Your task to perform on an android device: Is it going to rain today? Image 0: 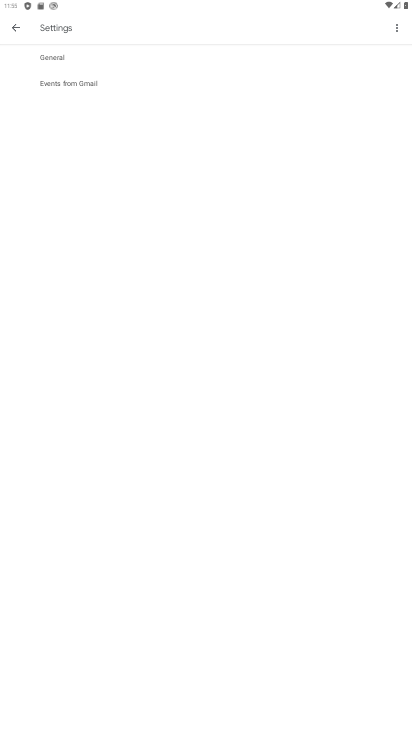
Step 0: press home button
Your task to perform on an android device: Is it going to rain today? Image 1: 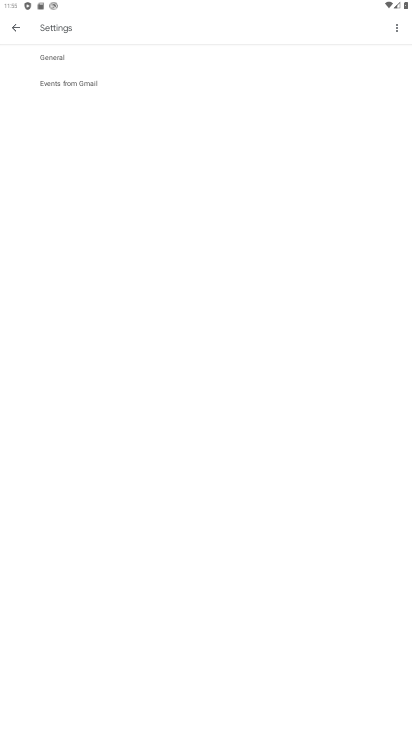
Step 1: press home button
Your task to perform on an android device: Is it going to rain today? Image 2: 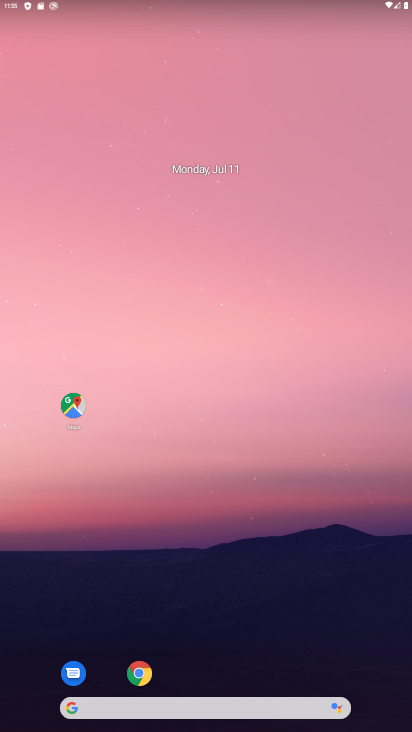
Step 2: drag from (227, 606) to (254, 49)
Your task to perform on an android device: Is it going to rain today? Image 3: 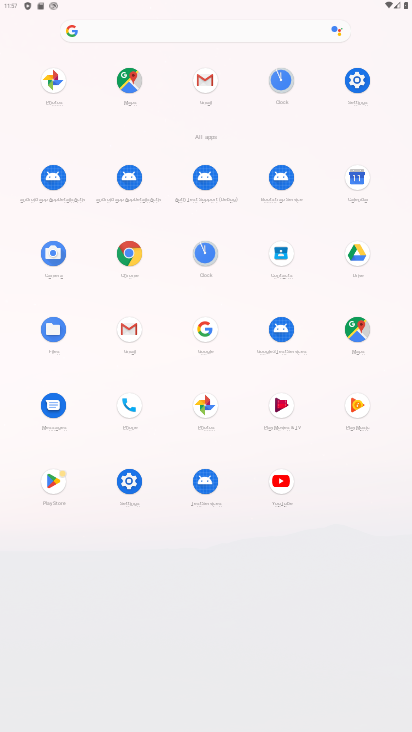
Step 3: click (142, 247)
Your task to perform on an android device: Is it going to rain today? Image 4: 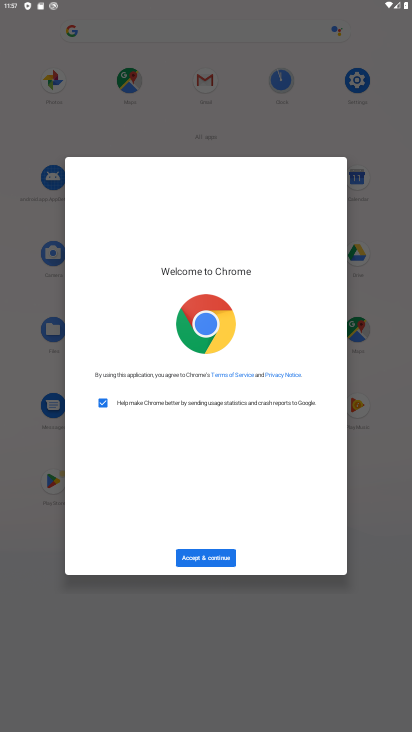
Step 4: click (211, 564)
Your task to perform on an android device: Is it going to rain today? Image 5: 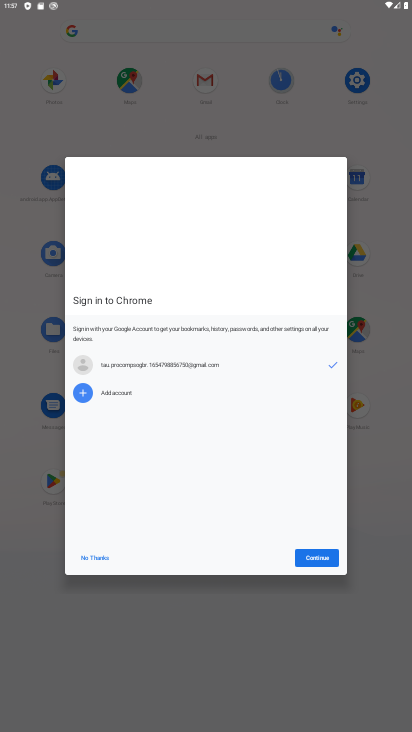
Step 5: click (327, 555)
Your task to perform on an android device: Is it going to rain today? Image 6: 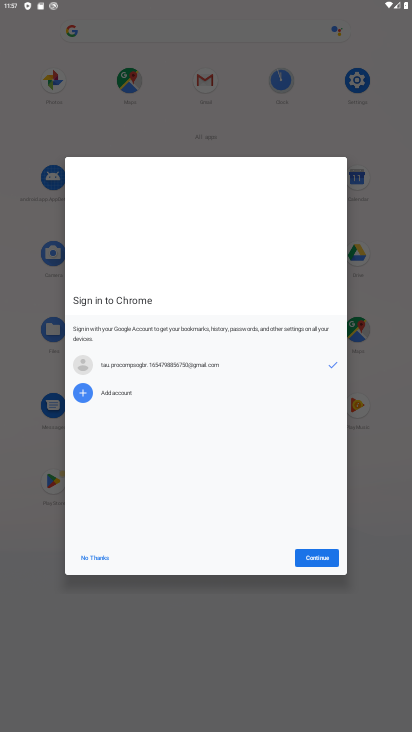
Step 6: click (327, 555)
Your task to perform on an android device: Is it going to rain today? Image 7: 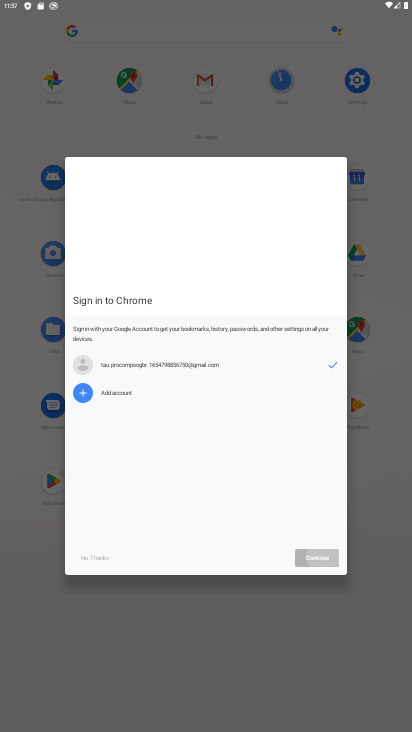
Step 7: click (327, 555)
Your task to perform on an android device: Is it going to rain today? Image 8: 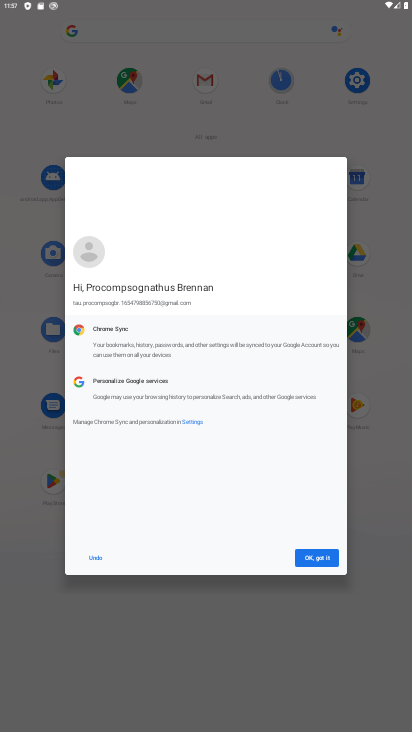
Step 8: click (327, 555)
Your task to perform on an android device: Is it going to rain today? Image 9: 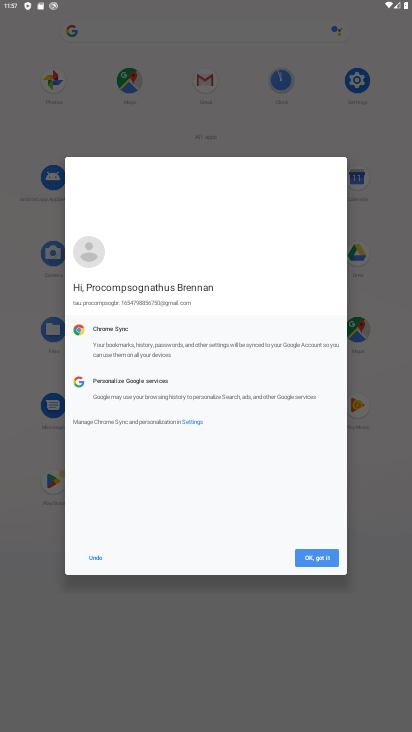
Step 9: click (327, 555)
Your task to perform on an android device: Is it going to rain today? Image 10: 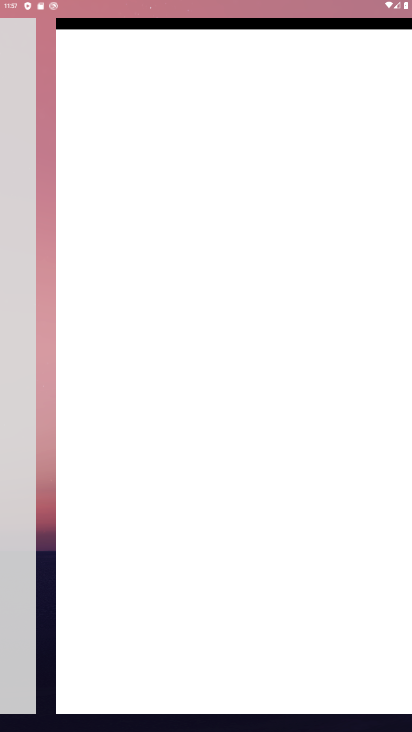
Step 10: click (327, 555)
Your task to perform on an android device: Is it going to rain today? Image 11: 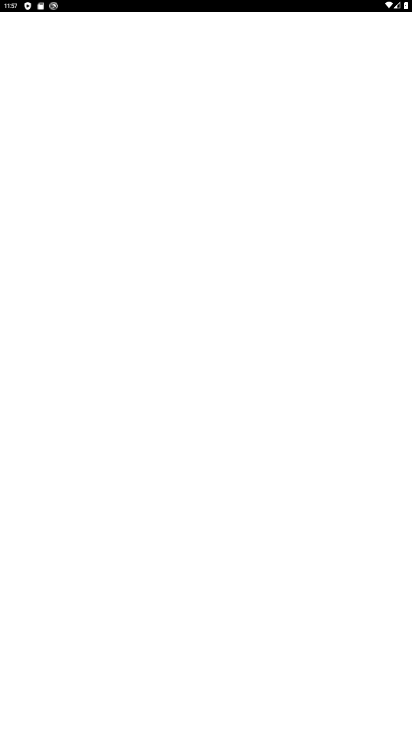
Step 11: click (327, 555)
Your task to perform on an android device: Is it going to rain today? Image 12: 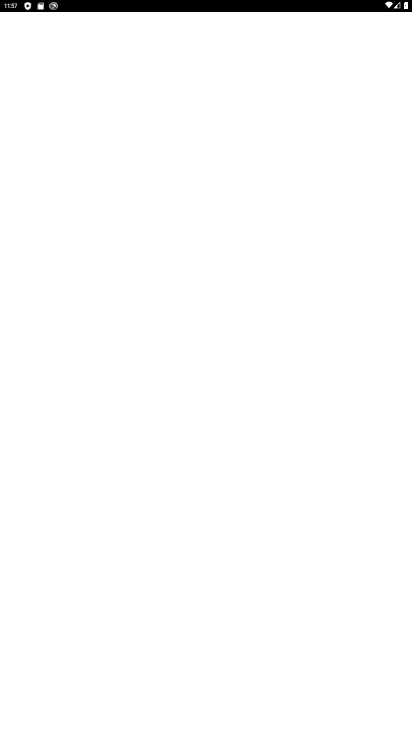
Step 12: click (327, 555)
Your task to perform on an android device: Is it going to rain today? Image 13: 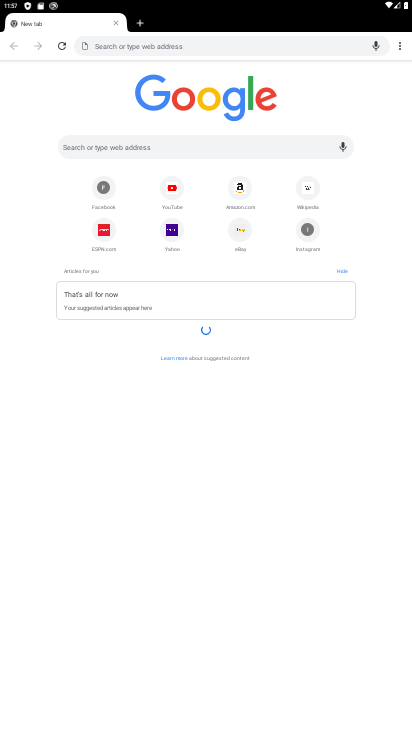
Step 13: click (212, 147)
Your task to perform on an android device: Is it going to rain today? Image 14: 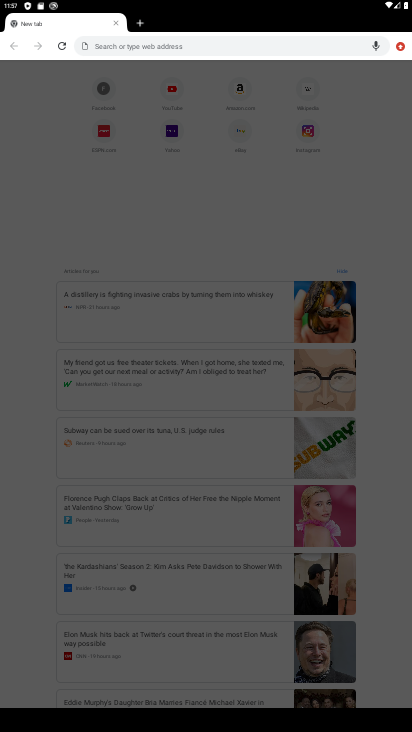
Step 14: type "Is it going to rain today?"
Your task to perform on an android device: Is it going to rain today? Image 15: 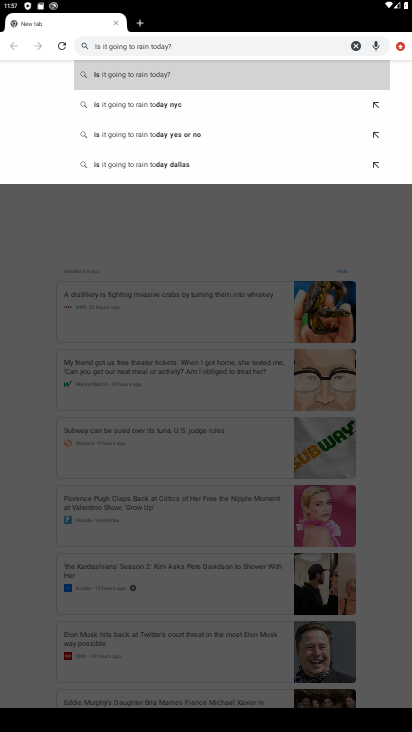
Step 15: click (106, 75)
Your task to perform on an android device: Is it going to rain today? Image 16: 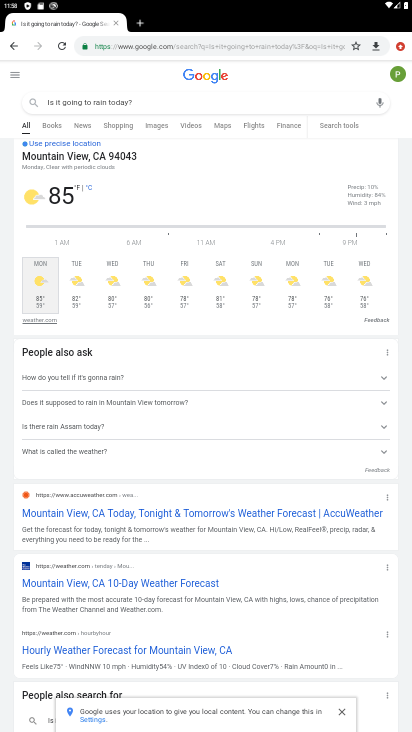
Step 16: task complete